Your task to perform on an android device: Go to network settings Image 0: 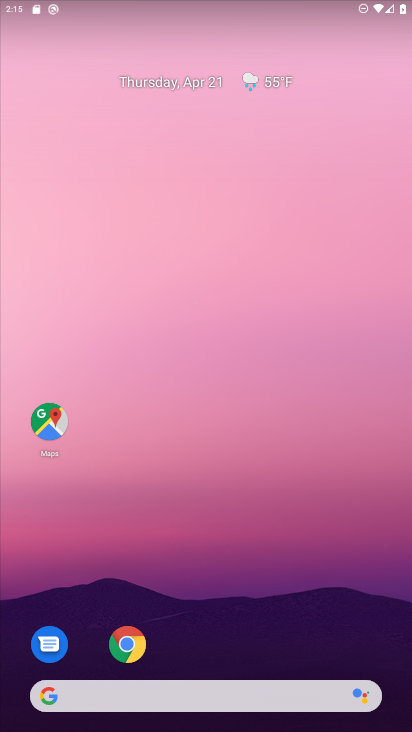
Step 0: drag from (260, 618) to (215, 33)
Your task to perform on an android device: Go to network settings Image 1: 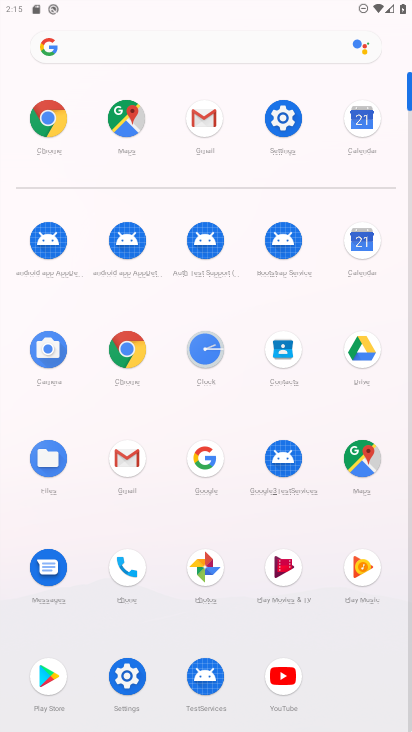
Step 1: click (279, 120)
Your task to perform on an android device: Go to network settings Image 2: 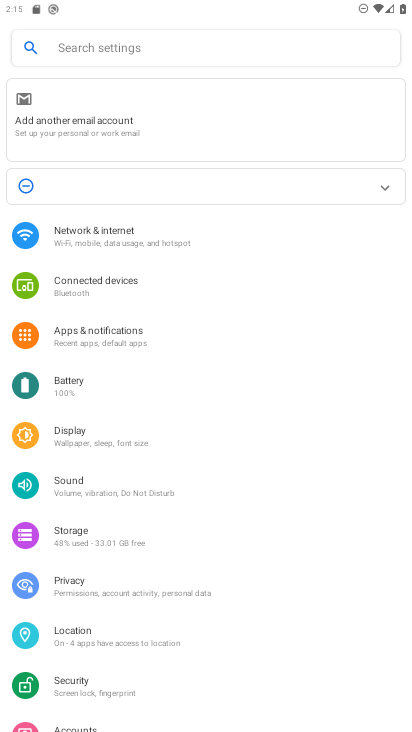
Step 2: click (261, 236)
Your task to perform on an android device: Go to network settings Image 3: 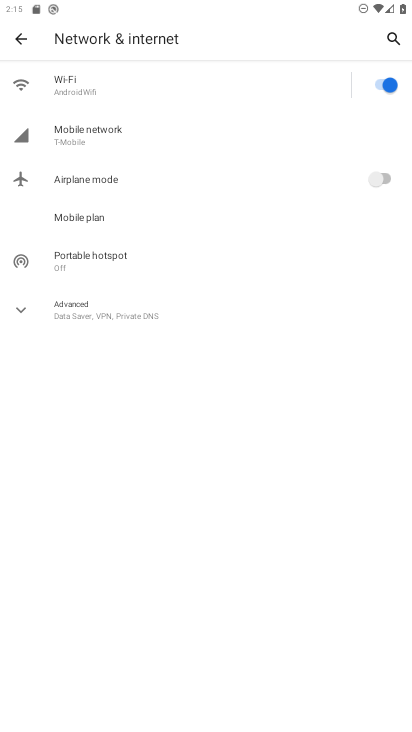
Step 3: task complete